Your task to perform on an android device: Go to network settings Image 0: 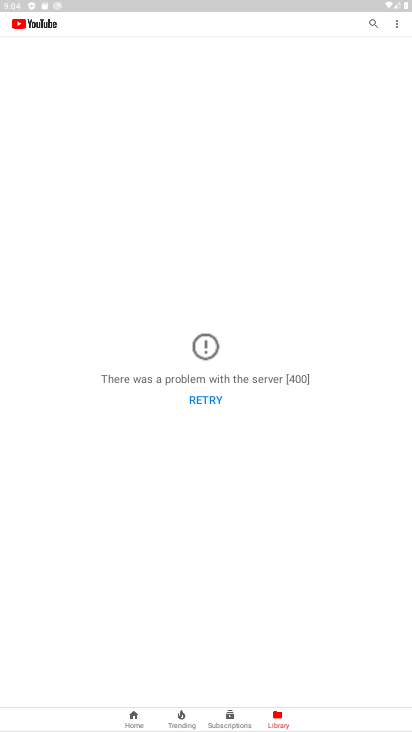
Step 0: press home button
Your task to perform on an android device: Go to network settings Image 1: 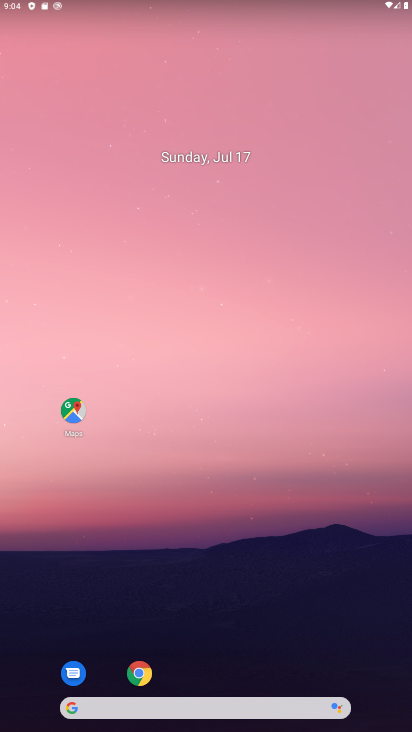
Step 1: drag from (332, 636) to (258, 10)
Your task to perform on an android device: Go to network settings Image 2: 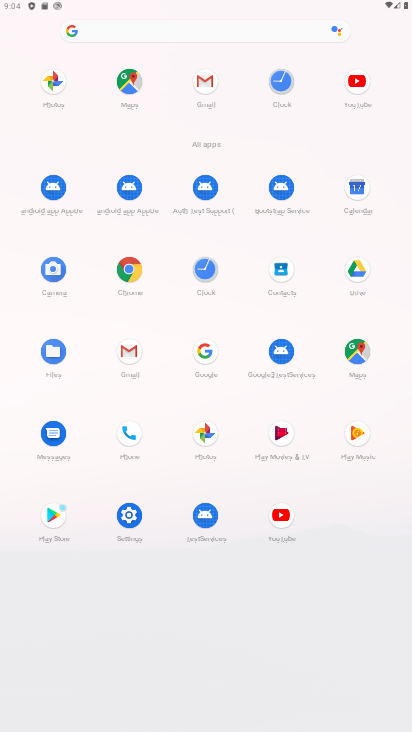
Step 2: click (132, 525)
Your task to perform on an android device: Go to network settings Image 3: 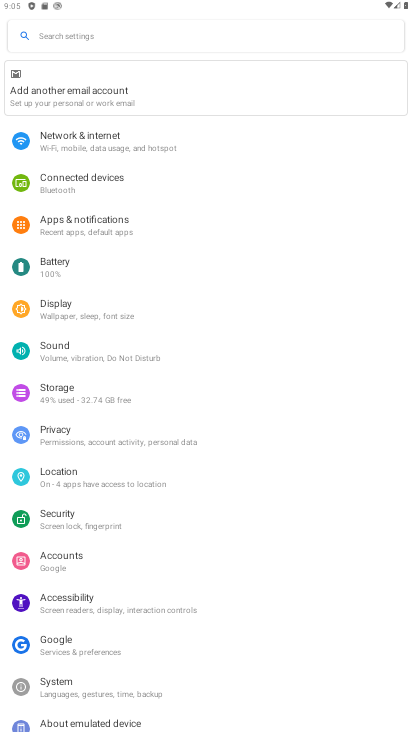
Step 3: click (73, 140)
Your task to perform on an android device: Go to network settings Image 4: 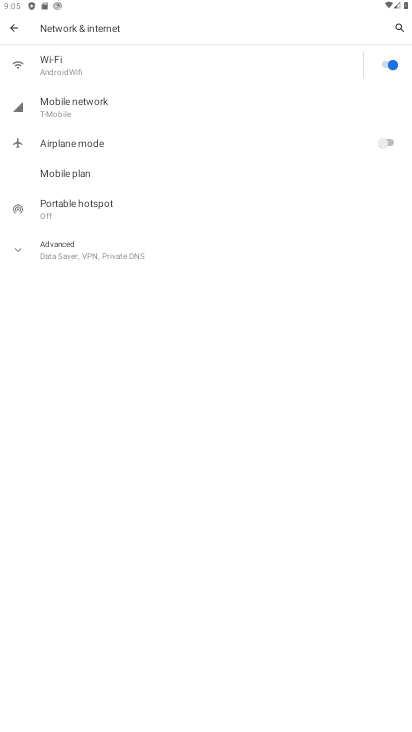
Step 4: task complete